Your task to perform on an android device: Do I have any events this weekend? Image 0: 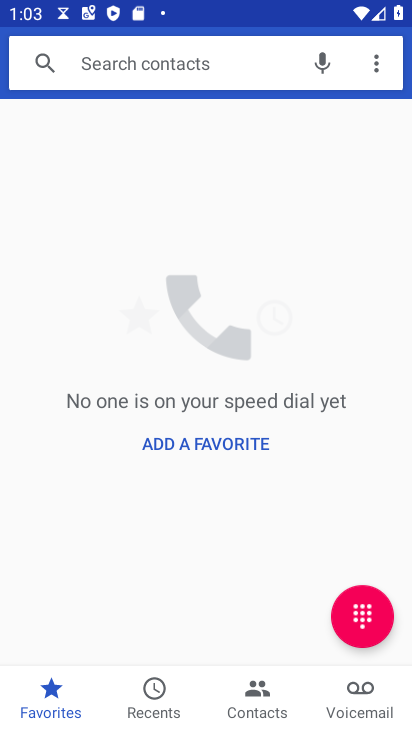
Step 0: press home button
Your task to perform on an android device: Do I have any events this weekend? Image 1: 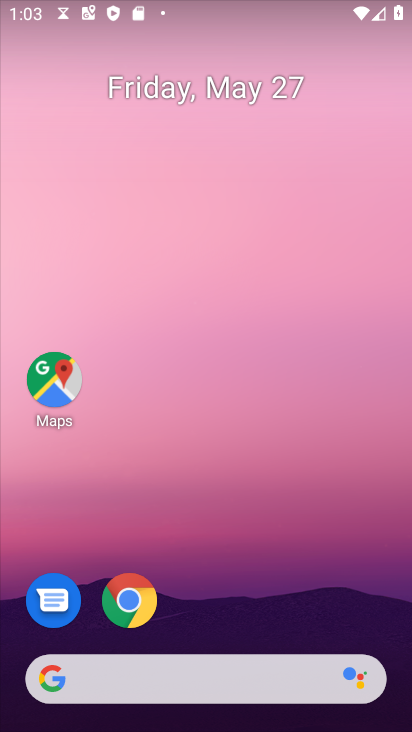
Step 1: drag from (289, 570) to (278, 32)
Your task to perform on an android device: Do I have any events this weekend? Image 2: 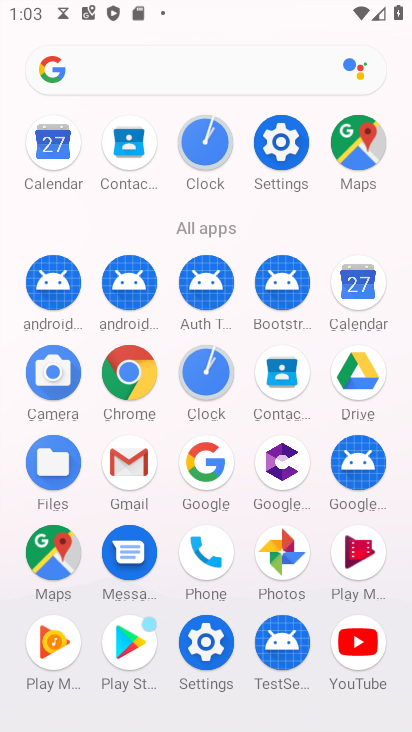
Step 2: click (65, 156)
Your task to perform on an android device: Do I have any events this weekend? Image 3: 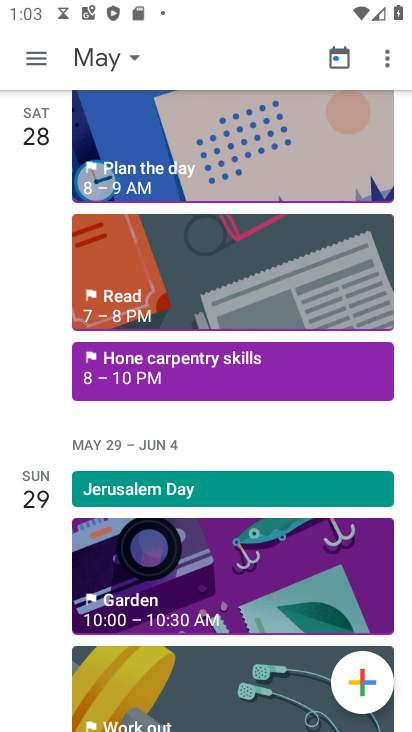
Step 3: click (49, 54)
Your task to perform on an android device: Do I have any events this weekend? Image 4: 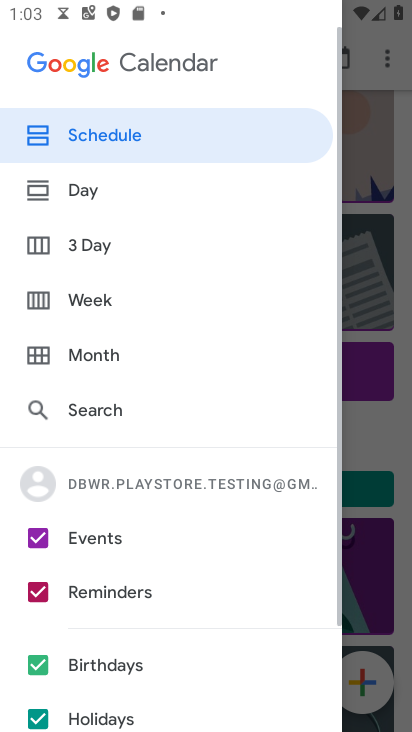
Step 4: click (128, 300)
Your task to perform on an android device: Do I have any events this weekend? Image 5: 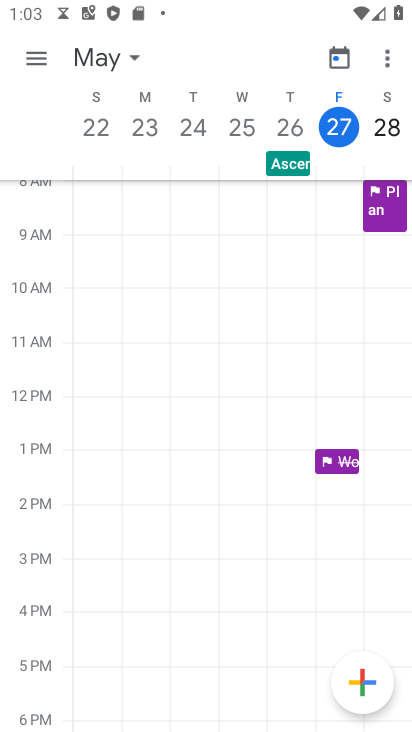
Step 5: task complete